Your task to perform on an android device: delete a single message in the gmail app Image 0: 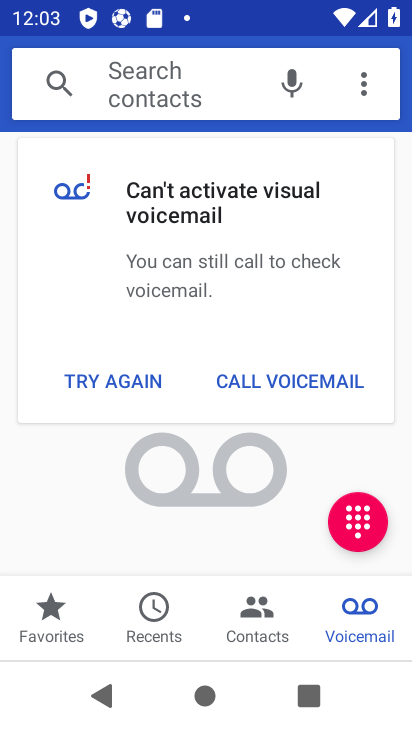
Step 0: press home button
Your task to perform on an android device: delete a single message in the gmail app Image 1: 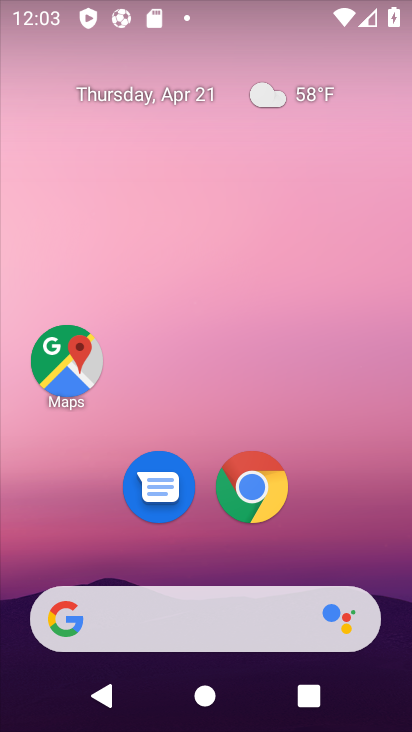
Step 1: drag from (347, 568) to (364, 5)
Your task to perform on an android device: delete a single message in the gmail app Image 2: 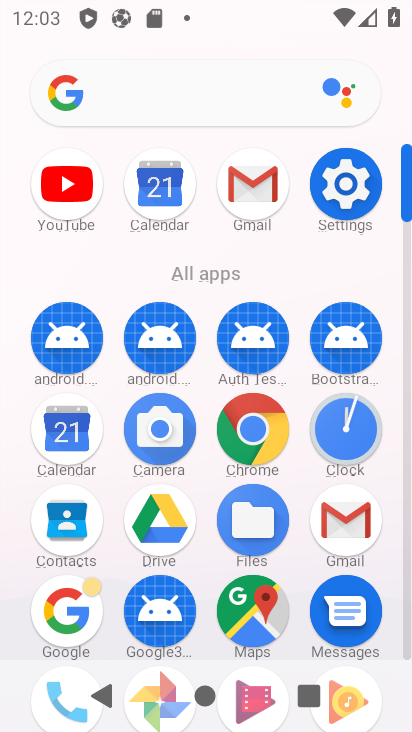
Step 2: click (243, 194)
Your task to perform on an android device: delete a single message in the gmail app Image 3: 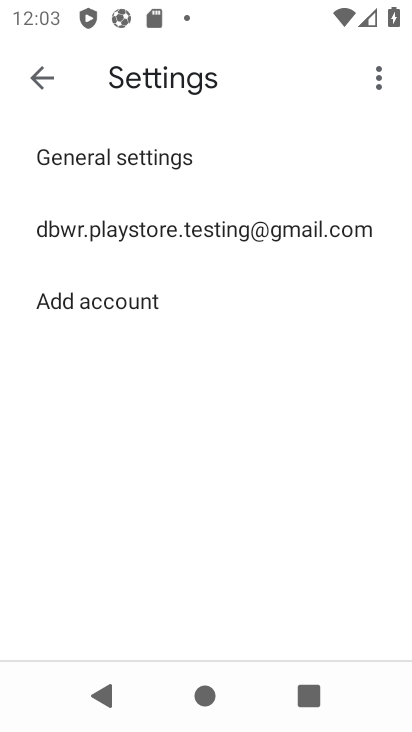
Step 3: click (45, 82)
Your task to perform on an android device: delete a single message in the gmail app Image 4: 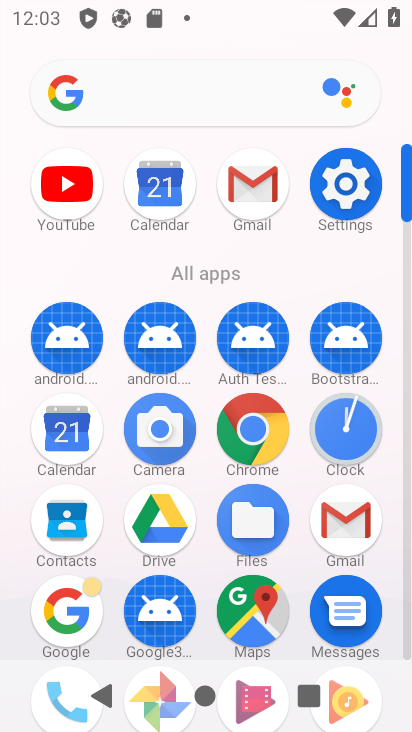
Step 4: click (253, 201)
Your task to perform on an android device: delete a single message in the gmail app Image 5: 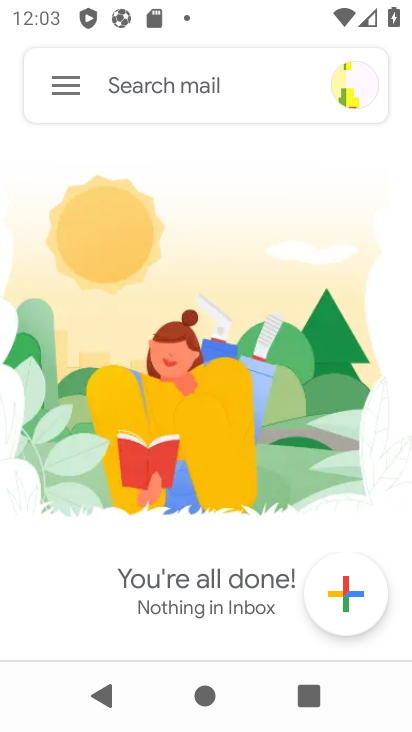
Step 5: click (65, 87)
Your task to perform on an android device: delete a single message in the gmail app Image 6: 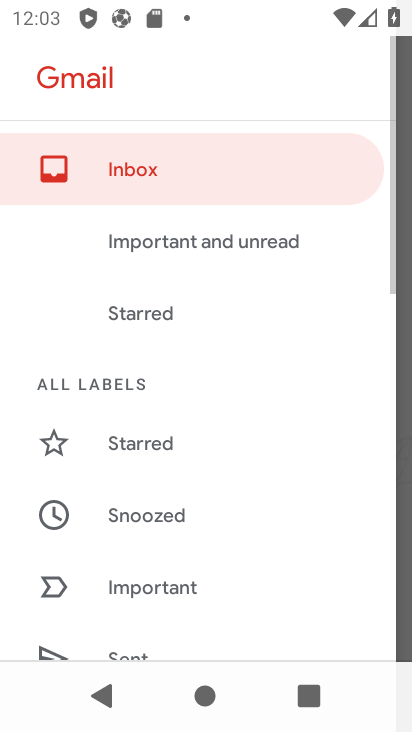
Step 6: drag from (233, 485) to (199, 165)
Your task to perform on an android device: delete a single message in the gmail app Image 7: 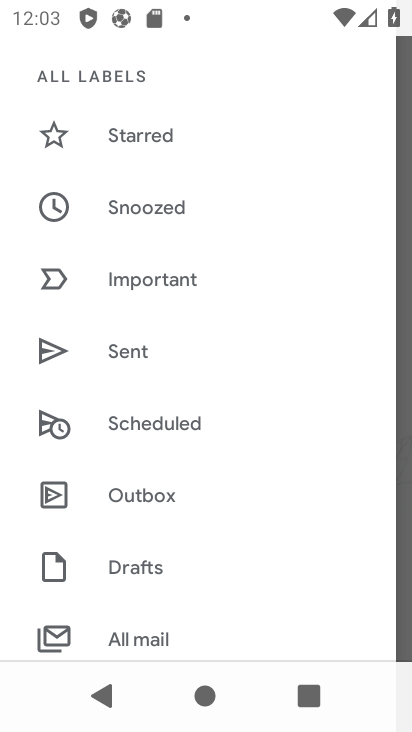
Step 7: drag from (241, 571) to (209, 207)
Your task to perform on an android device: delete a single message in the gmail app Image 8: 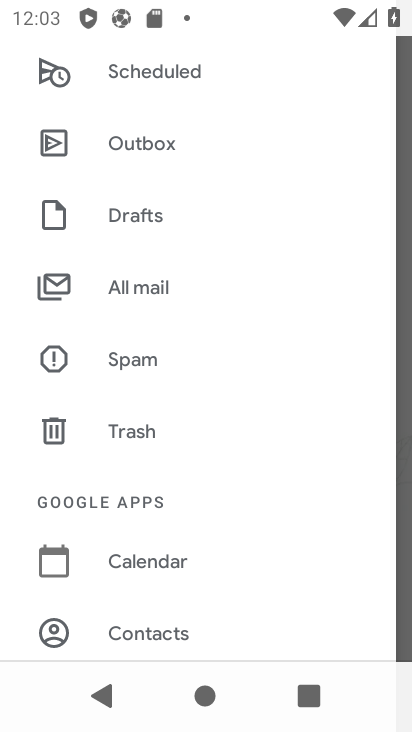
Step 8: click (144, 296)
Your task to perform on an android device: delete a single message in the gmail app Image 9: 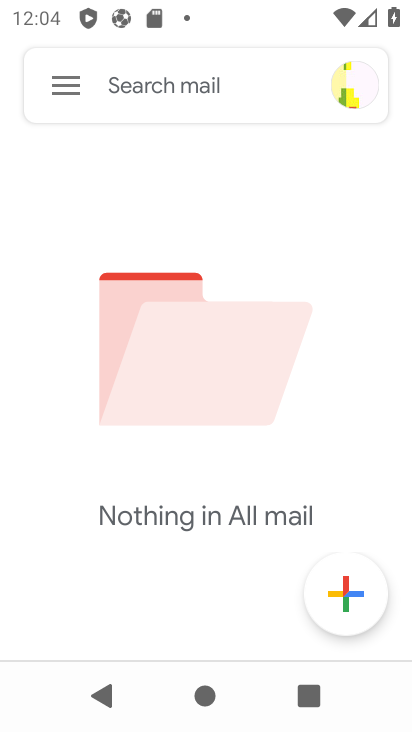
Step 9: task complete